Your task to perform on an android device: Do I have any events this weekend? Image 0: 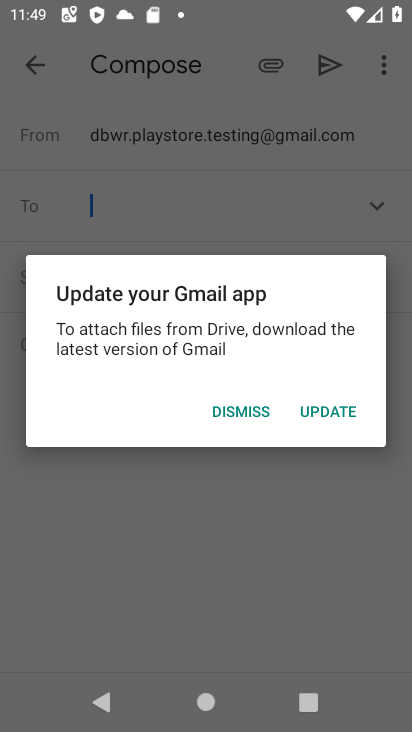
Step 0: press home button
Your task to perform on an android device: Do I have any events this weekend? Image 1: 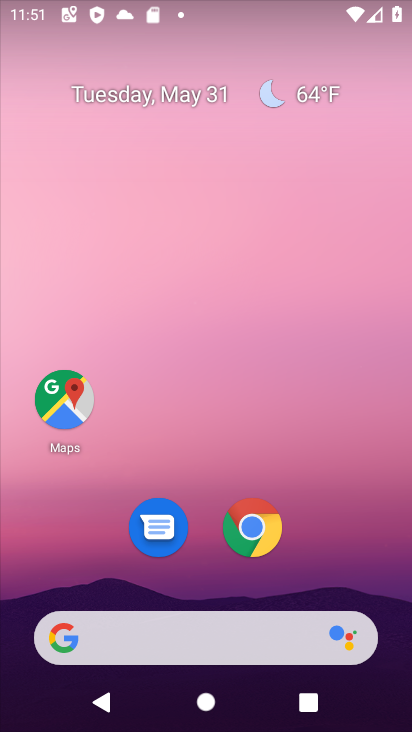
Step 1: drag from (253, 566) to (278, 10)
Your task to perform on an android device: Do I have any events this weekend? Image 2: 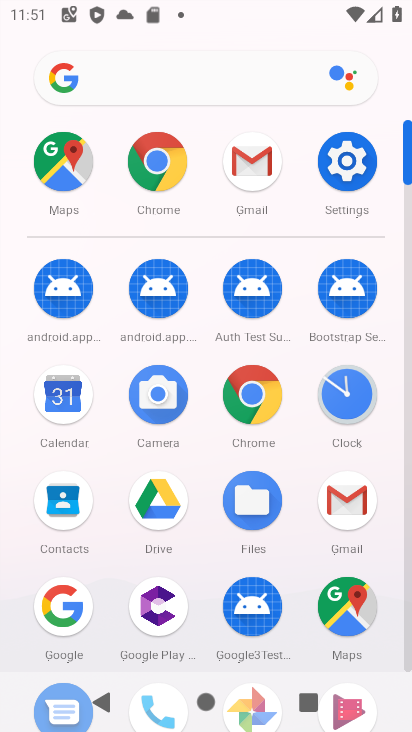
Step 2: click (67, 398)
Your task to perform on an android device: Do I have any events this weekend? Image 3: 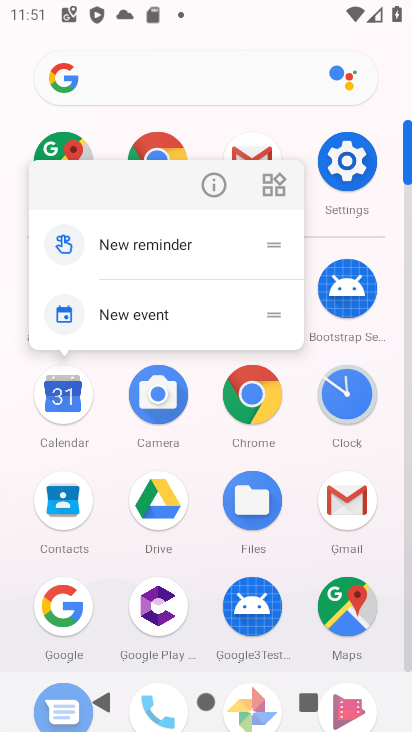
Step 3: click (60, 411)
Your task to perform on an android device: Do I have any events this weekend? Image 4: 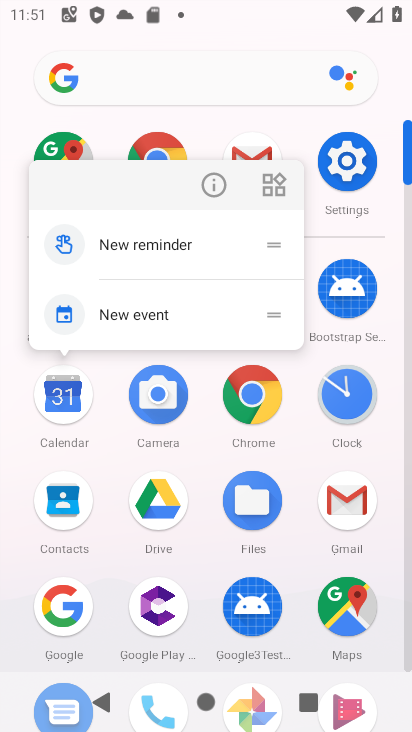
Step 4: click (60, 411)
Your task to perform on an android device: Do I have any events this weekend? Image 5: 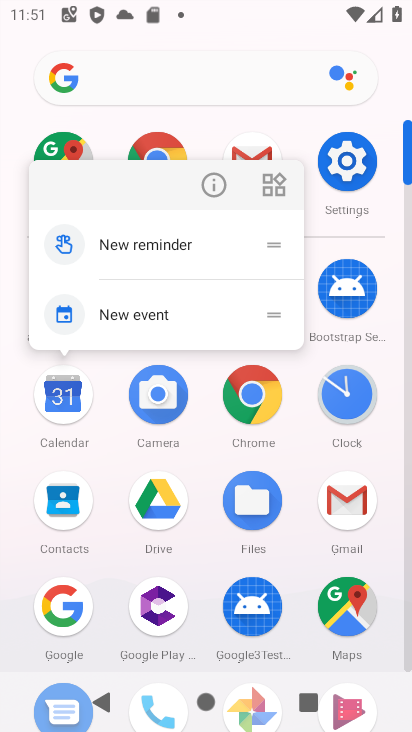
Step 5: click (60, 411)
Your task to perform on an android device: Do I have any events this weekend? Image 6: 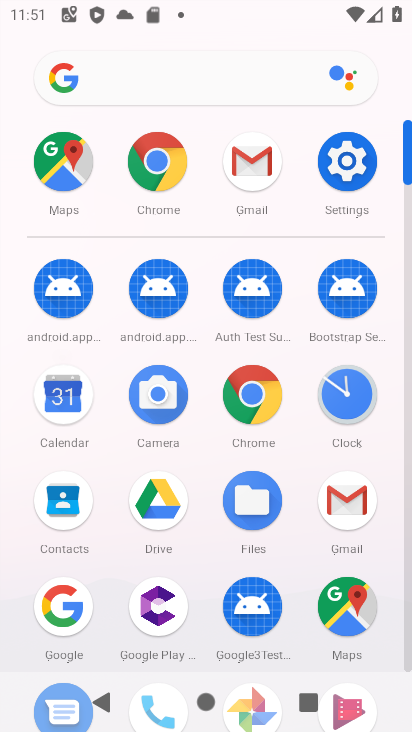
Step 6: click (60, 411)
Your task to perform on an android device: Do I have any events this weekend? Image 7: 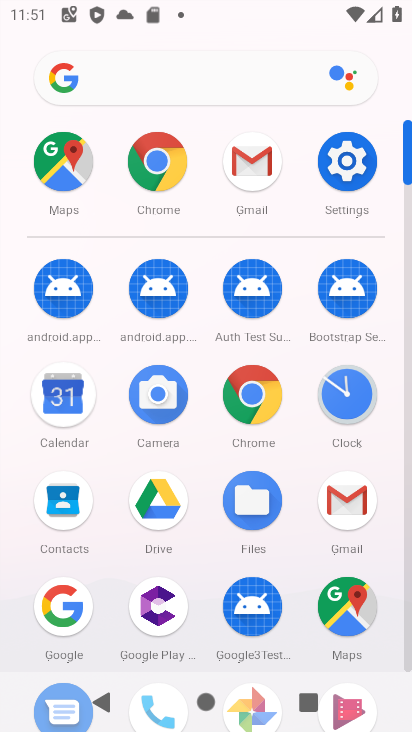
Step 7: click (60, 411)
Your task to perform on an android device: Do I have any events this weekend? Image 8: 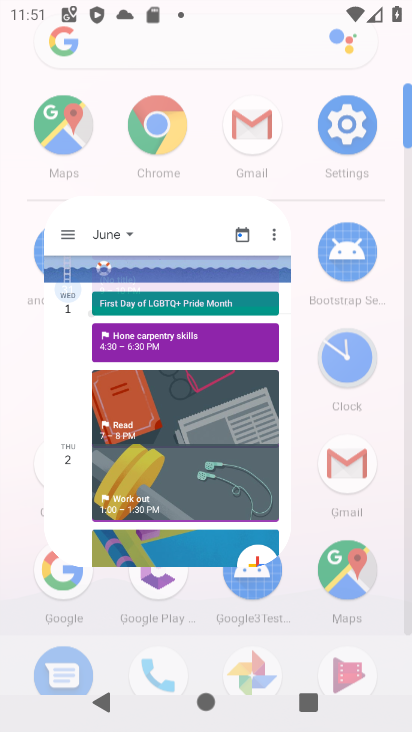
Step 8: click (60, 411)
Your task to perform on an android device: Do I have any events this weekend? Image 9: 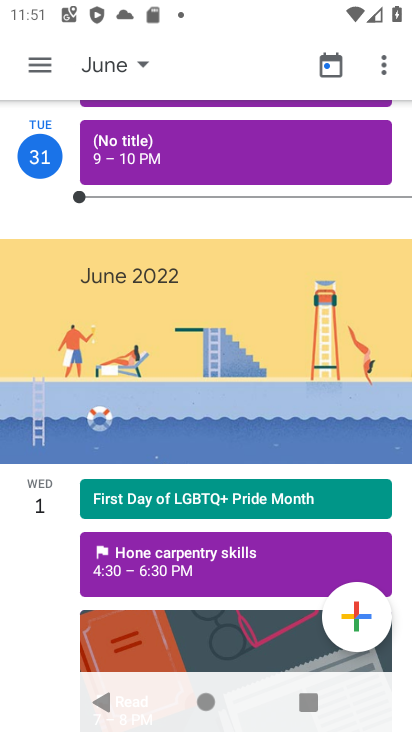
Step 9: task complete